Your task to perform on an android device: Open Android settings Image 0: 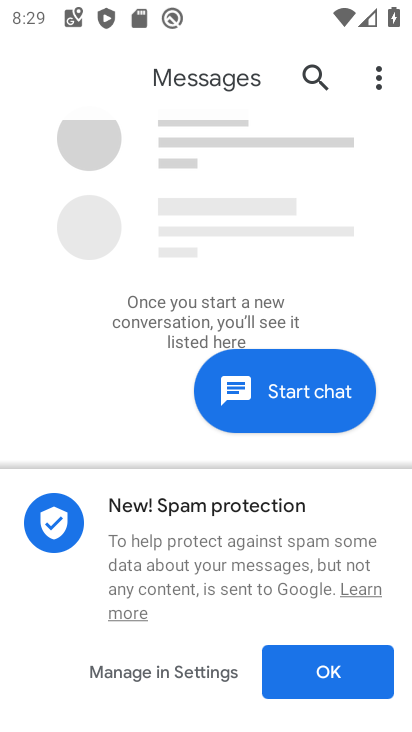
Step 0: press home button
Your task to perform on an android device: Open Android settings Image 1: 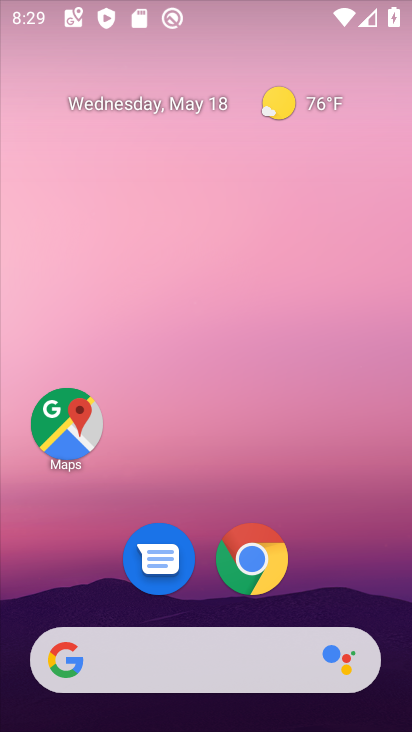
Step 1: drag from (316, 552) to (305, 32)
Your task to perform on an android device: Open Android settings Image 2: 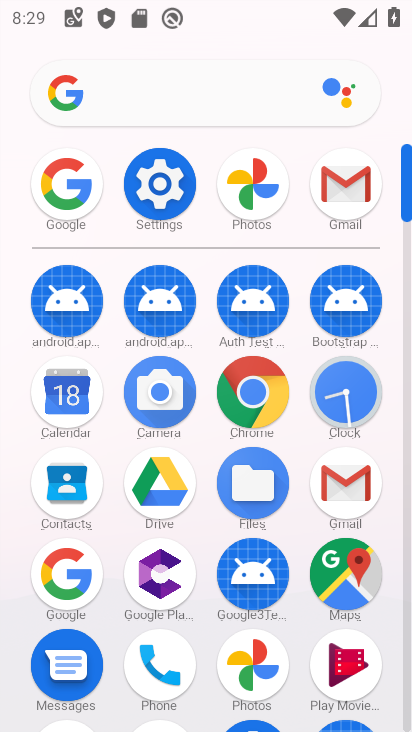
Step 2: click (165, 178)
Your task to perform on an android device: Open Android settings Image 3: 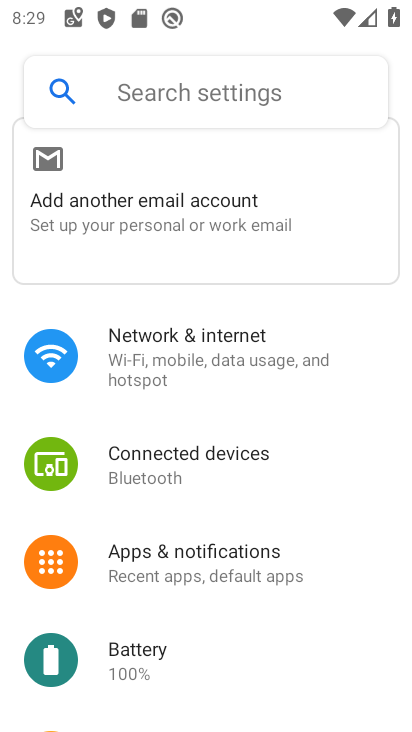
Step 3: click (188, 370)
Your task to perform on an android device: Open Android settings Image 4: 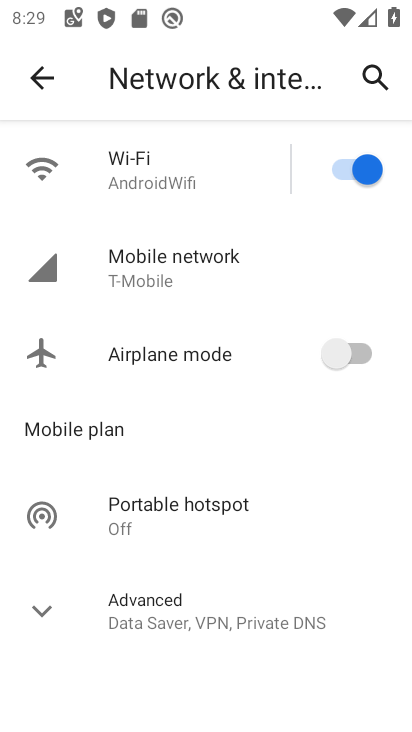
Step 4: click (134, 160)
Your task to perform on an android device: Open Android settings Image 5: 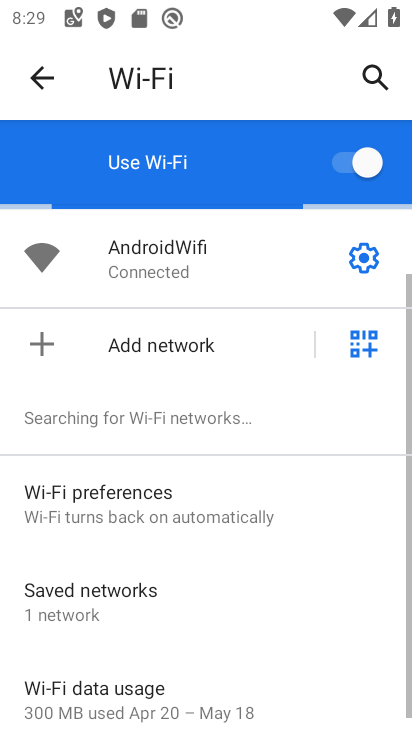
Step 5: click (365, 255)
Your task to perform on an android device: Open Android settings Image 6: 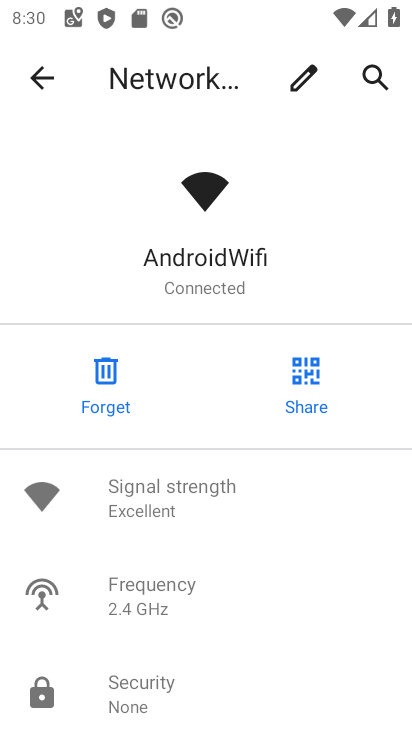
Step 6: task complete